Your task to perform on an android device: open app "Facebook" (install if not already installed) Image 0: 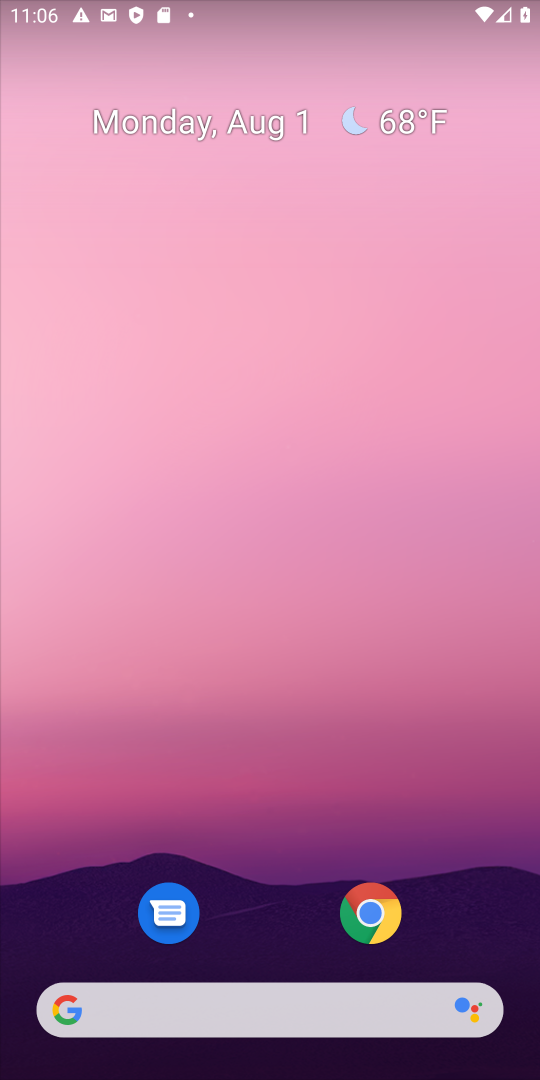
Step 0: press home button
Your task to perform on an android device: open app "Facebook" (install if not already installed) Image 1: 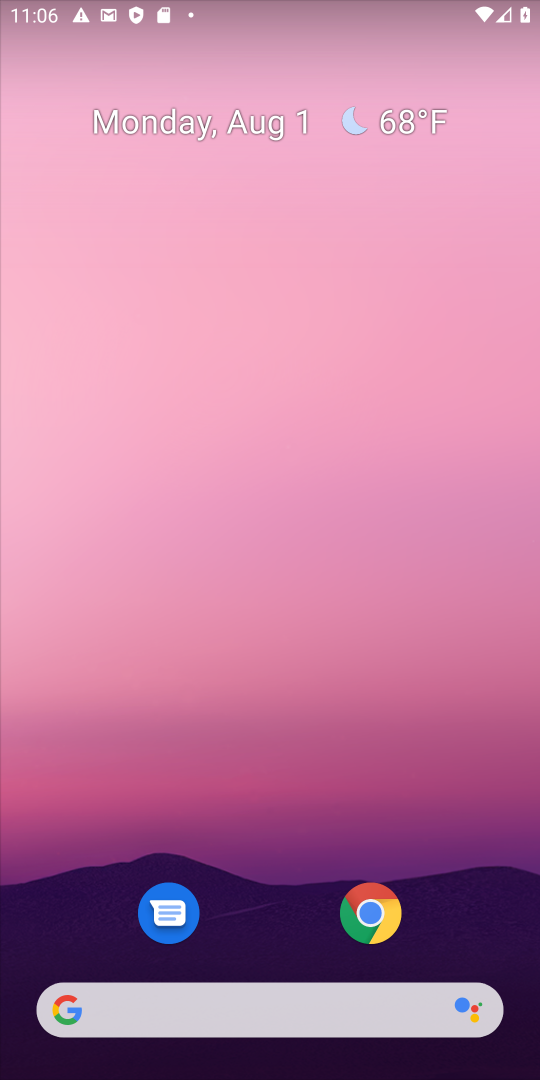
Step 1: click (417, 214)
Your task to perform on an android device: open app "Facebook" (install if not already installed) Image 2: 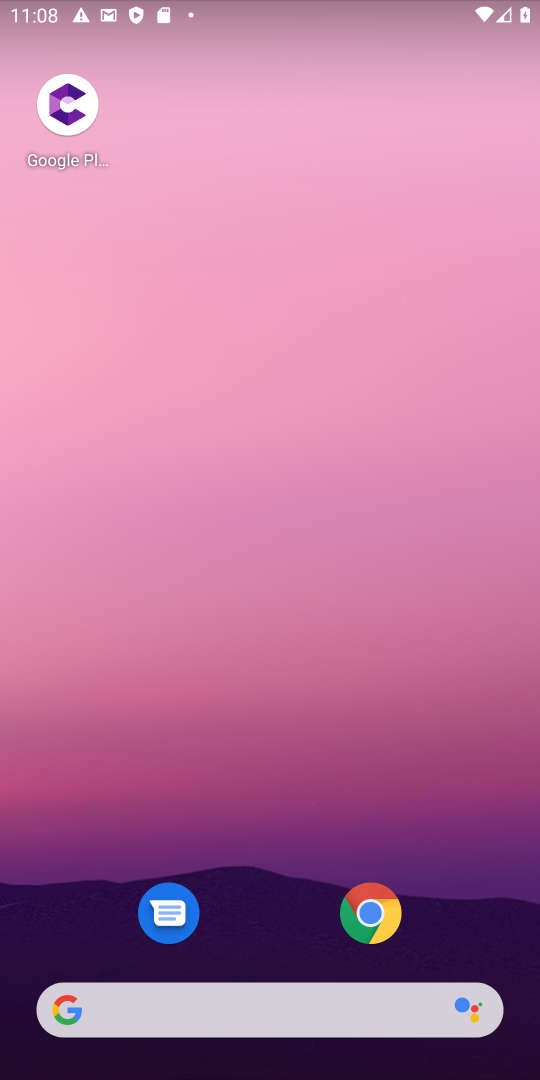
Step 2: drag from (435, 584) to (385, 140)
Your task to perform on an android device: open app "Facebook" (install if not already installed) Image 3: 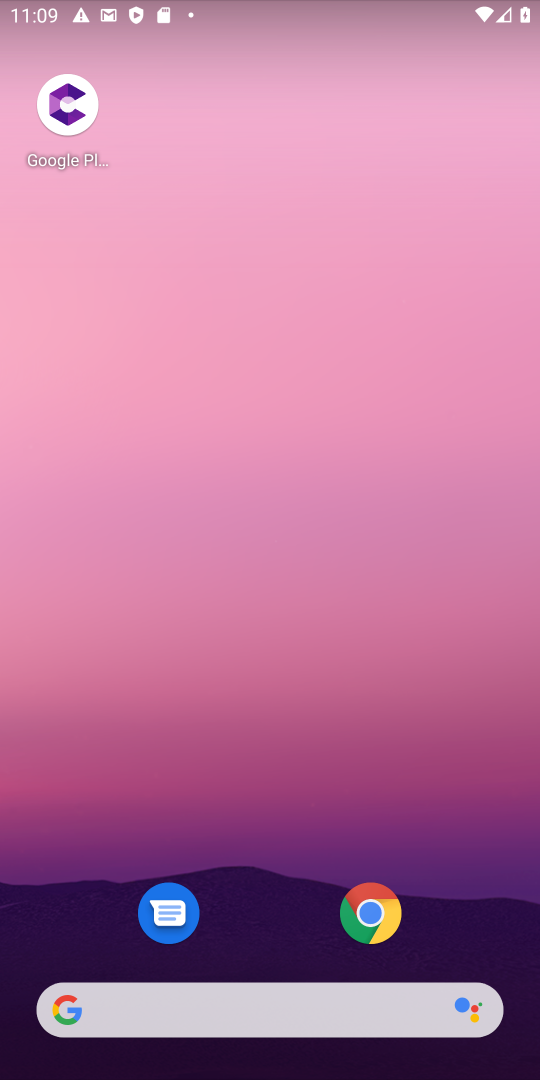
Step 3: drag from (533, 1031) to (409, 125)
Your task to perform on an android device: open app "Facebook" (install if not already installed) Image 4: 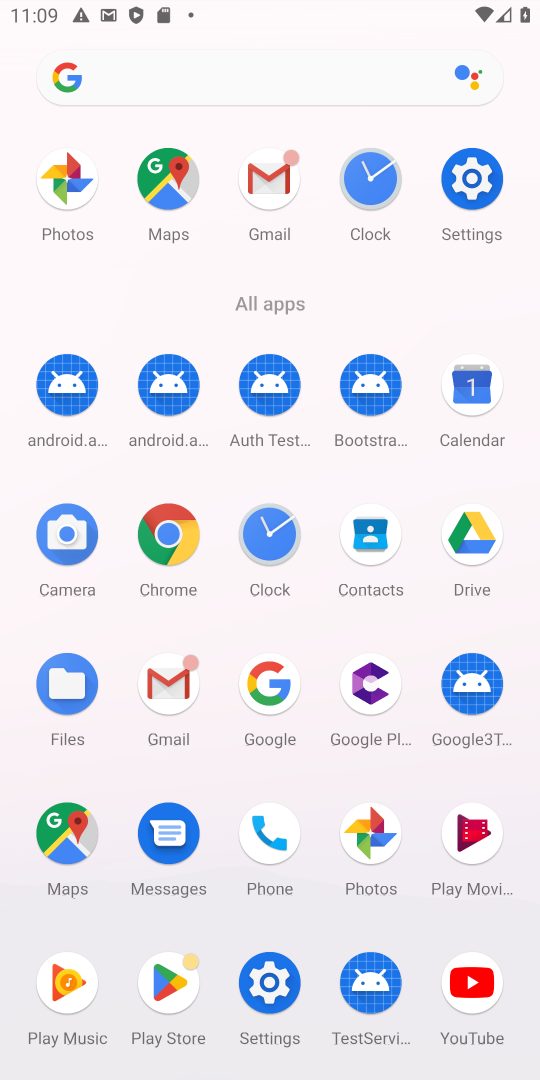
Step 4: click (181, 986)
Your task to perform on an android device: open app "Facebook" (install if not already installed) Image 5: 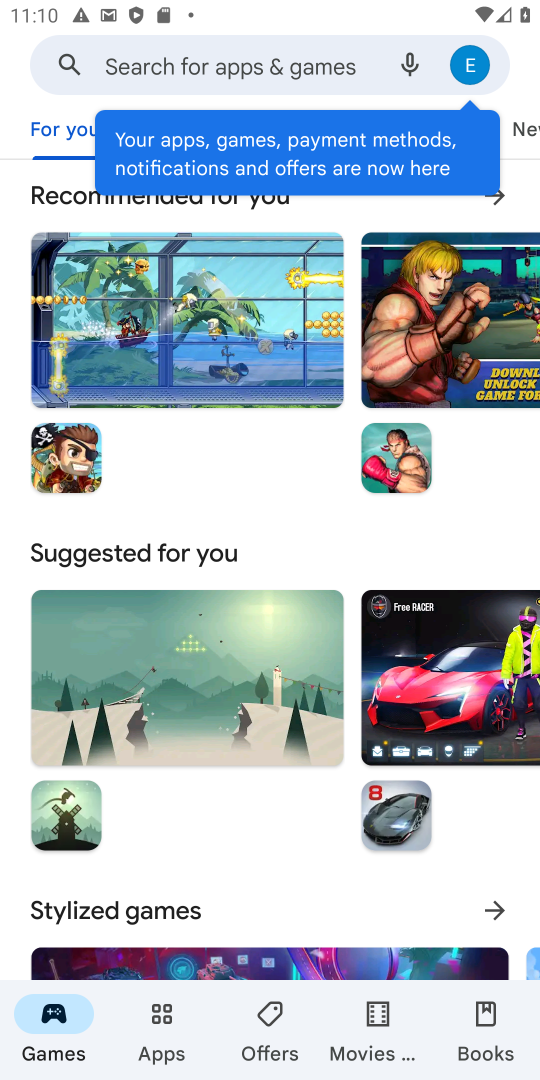
Step 5: click (267, 66)
Your task to perform on an android device: open app "Facebook" (install if not already installed) Image 6: 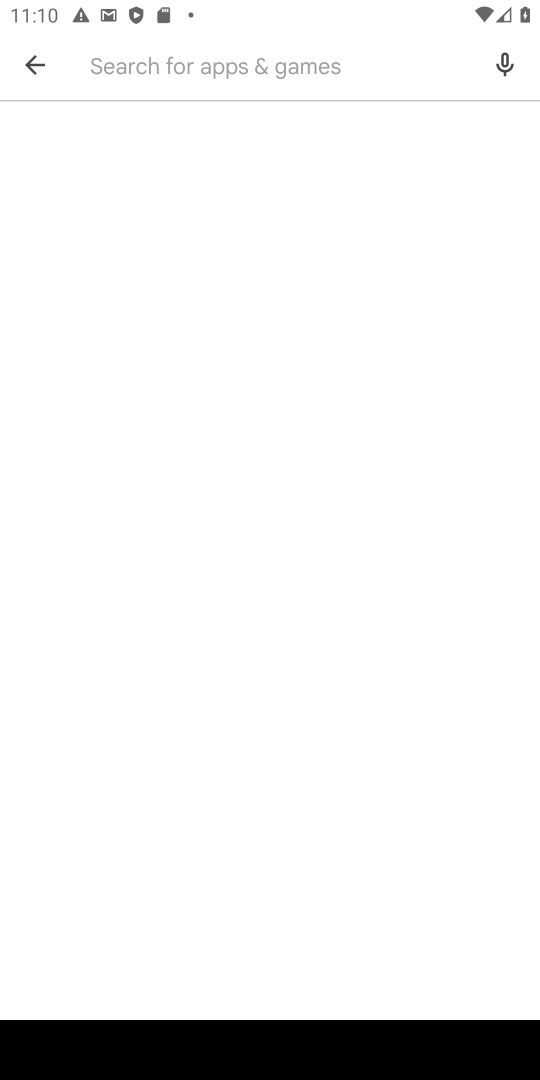
Step 6: type "Facebook"
Your task to perform on an android device: open app "Facebook" (install if not already installed) Image 7: 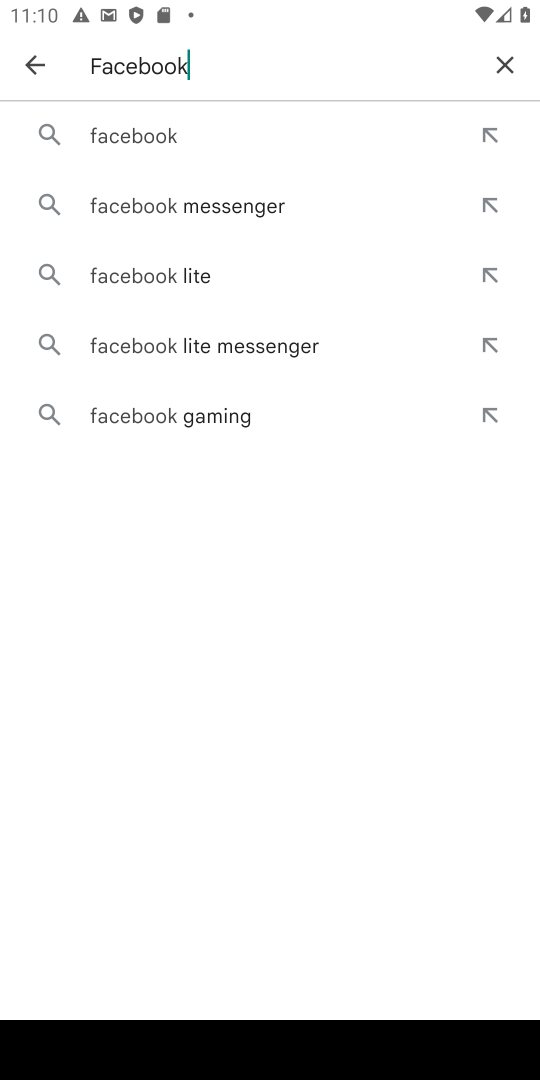
Step 7: click (160, 141)
Your task to perform on an android device: open app "Facebook" (install if not already installed) Image 8: 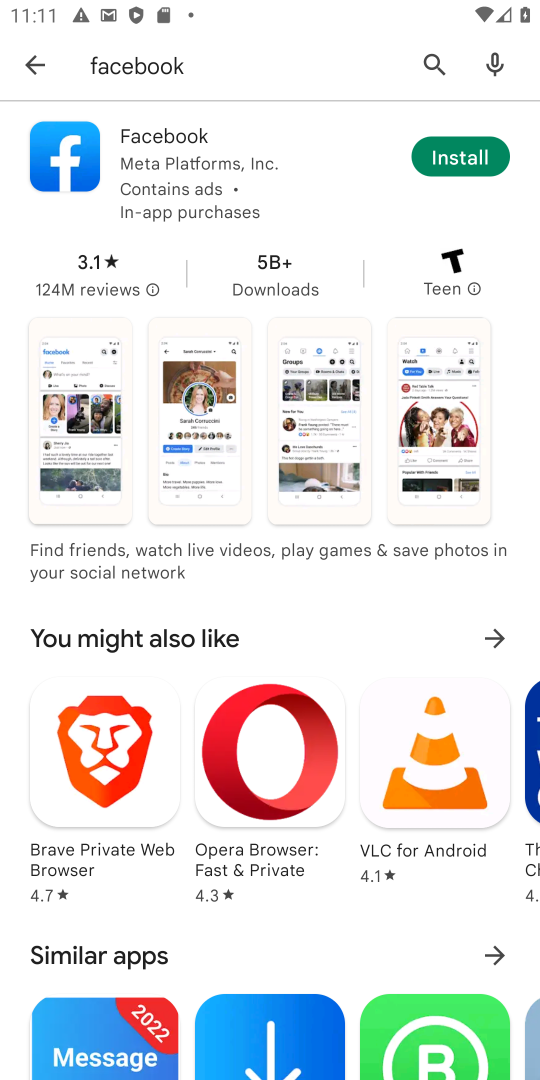
Step 8: click (473, 145)
Your task to perform on an android device: open app "Facebook" (install if not already installed) Image 9: 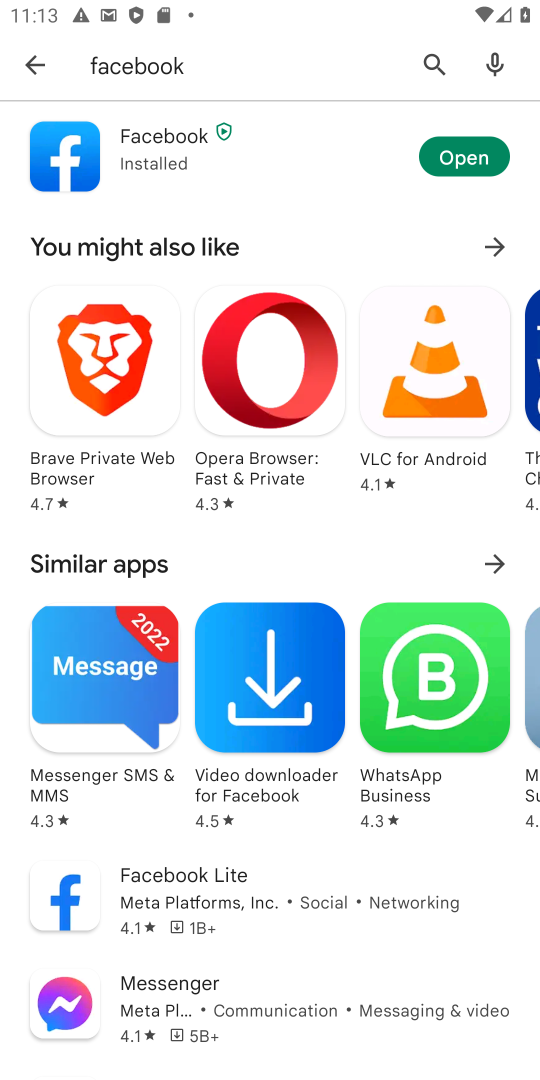
Step 9: click (461, 153)
Your task to perform on an android device: open app "Facebook" (install if not already installed) Image 10: 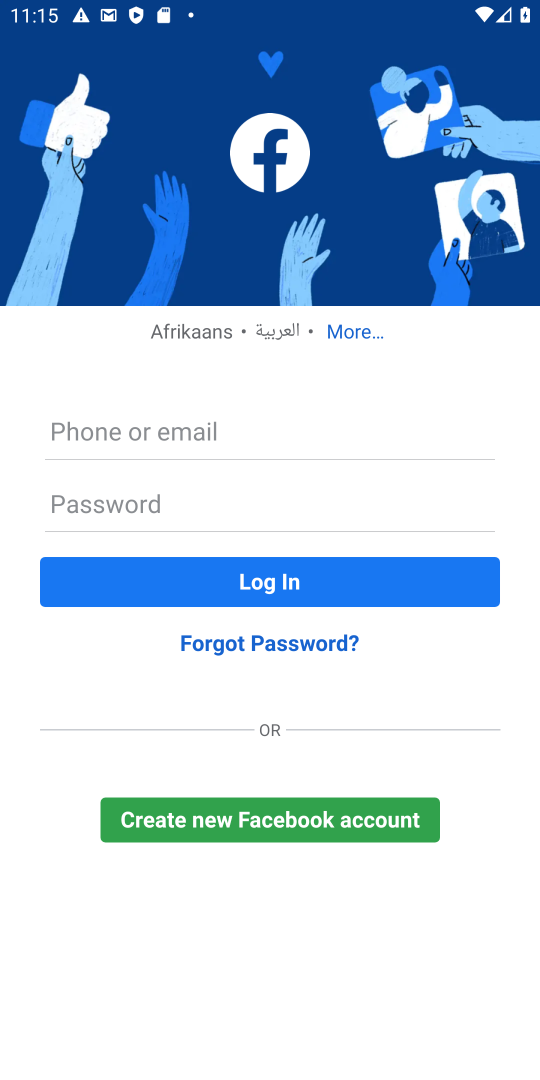
Step 10: task complete